Your task to perform on an android device: turn on notifications settings in the gmail app Image 0: 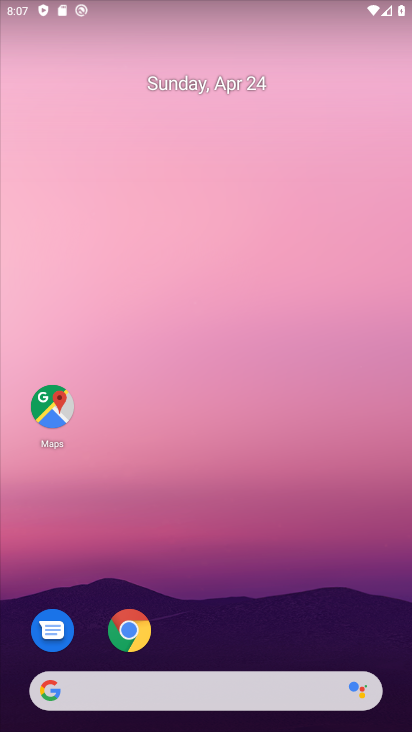
Step 0: drag from (295, 577) to (266, 0)
Your task to perform on an android device: turn on notifications settings in the gmail app Image 1: 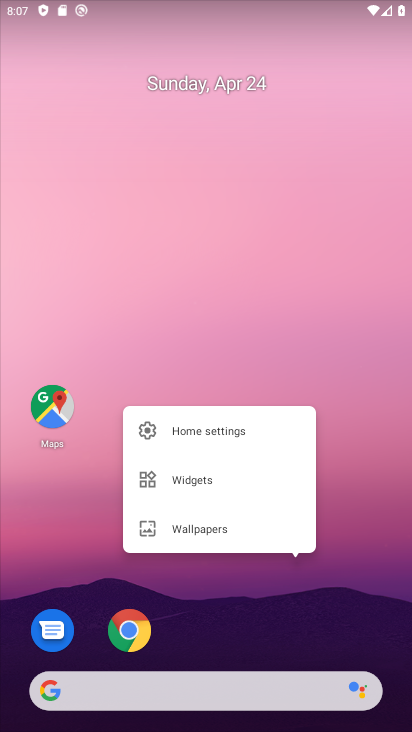
Step 1: click (217, 611)
Your task to perform on an android device: turn on notifications settings in the gmail app Image 2: 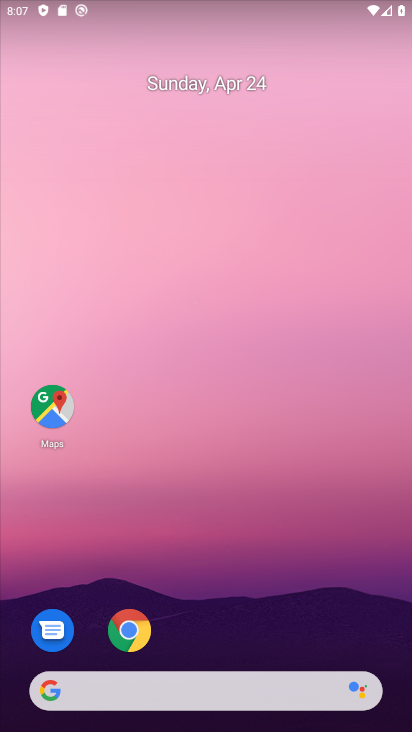
Step 2: drag from (217, 611) to (312, 31)
Your task to perform on an android device: turn on notifications settings in the gmail app Image 3: 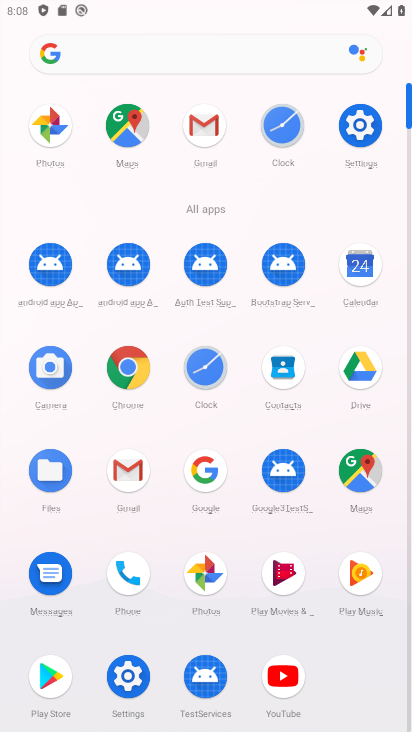
Step 3: click (209, 114)
Your task to perform on an android device: turn on notifications settings in the gmail app Image 4: 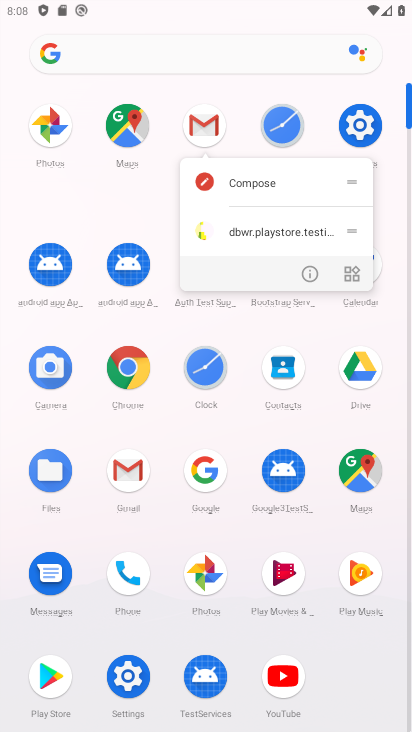
Step 4: click (307, 272)
Your task to perform on an android device: turn on notifications settings in the gmail app Image 5: 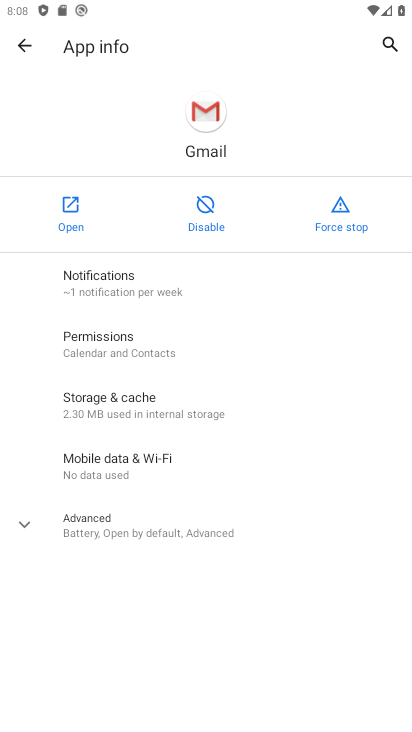
Step 5: click (212, 285)
Your task to perform on an android device: turn on notifications settings in the gmail app Image 6: 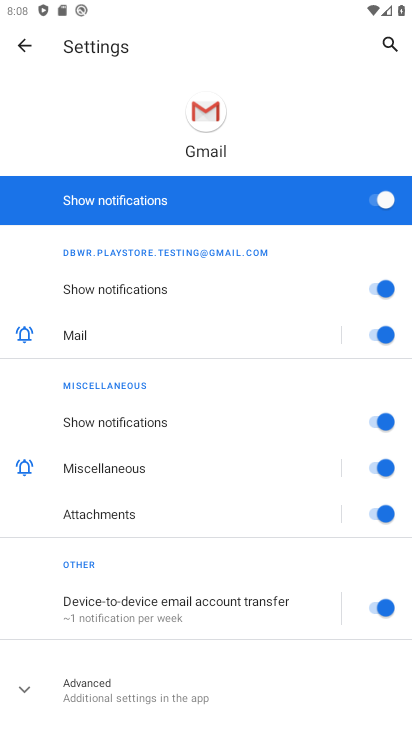
Step 6: click (364, 196)
Your task to perform on an android device: turn on notifications settings in the gmail app Image 7: 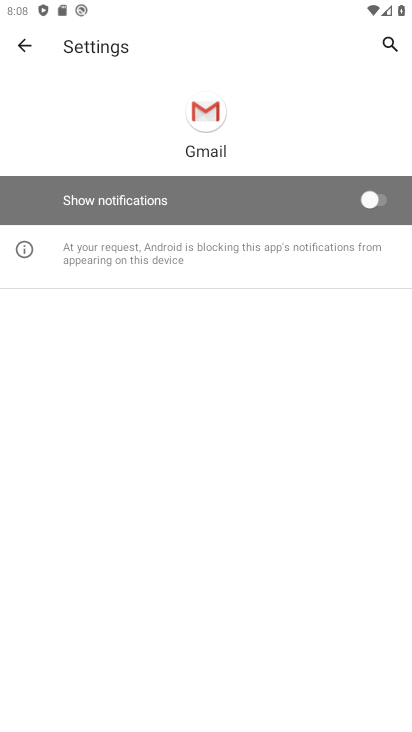
Step 7: task complete